Your task to perform on an android device: turn off javascript in the chrome app Image 0: 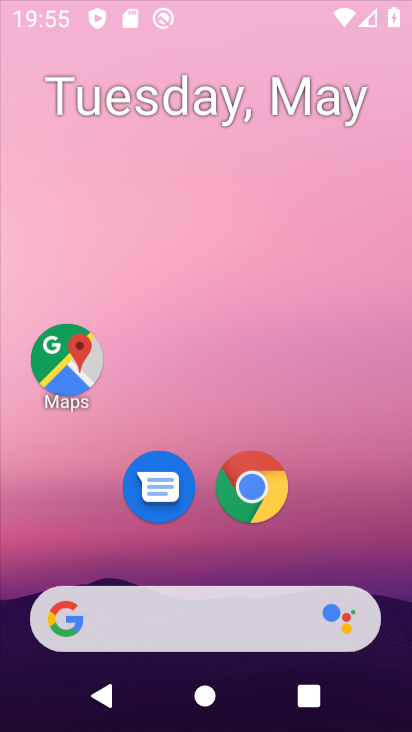
Step 0: drag from (319, 464) to (315, 178)
Your task to perform on an android device: turn off javascript in the chrome app Image 1: 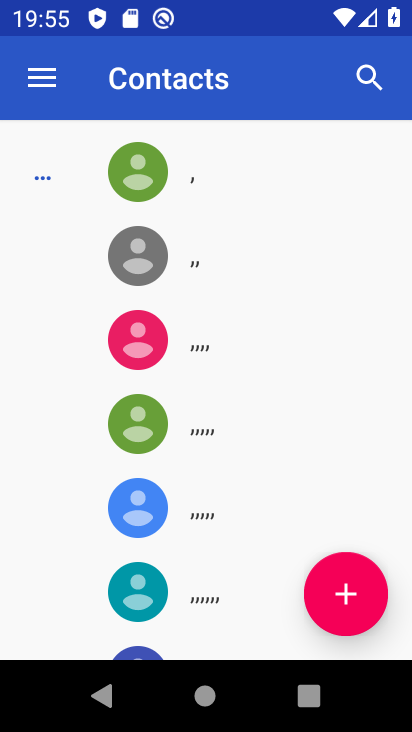
Step 1: press home button
Your task to perform on an android device: turn off javascript in the chrome app Image 2: 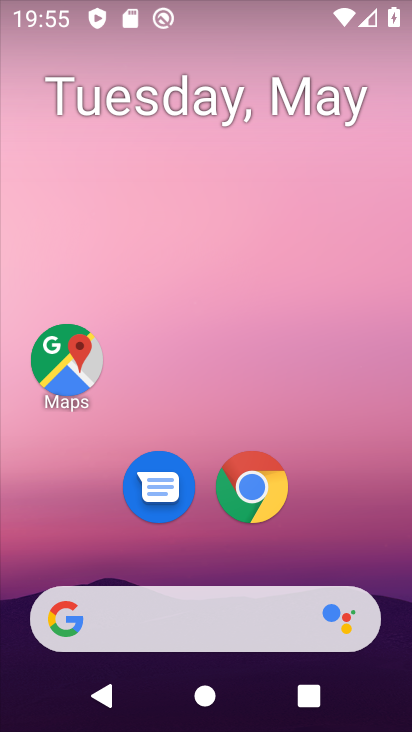
Step 2: drag from (353, 538) to (315, 88)
Your task to perform on an android device: turn off javascript in the chrome app Image 3: 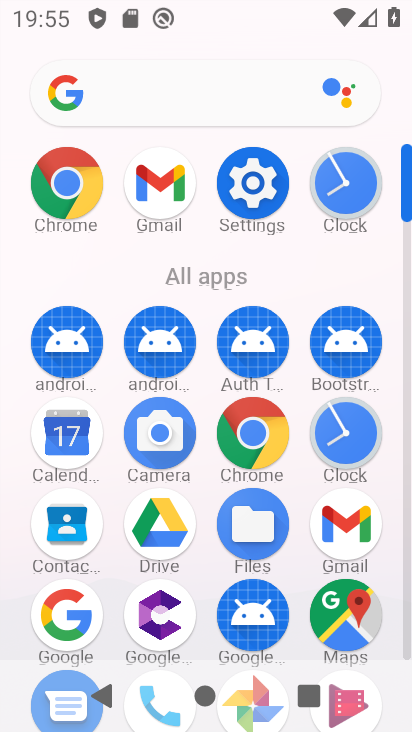
Step 3: click (267, 432)
Your task to perform on an android device: turn off javascript in the chrome app Image 4: 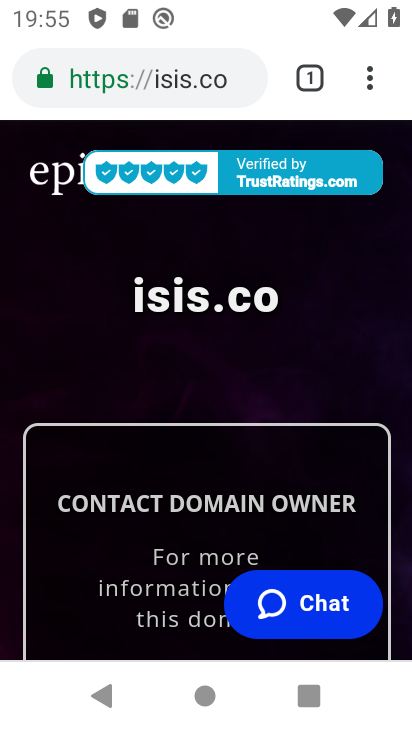
Step 4: click (363, 95)
Your task to perform on an android device: turn off javascript in the chrome app Image 5: 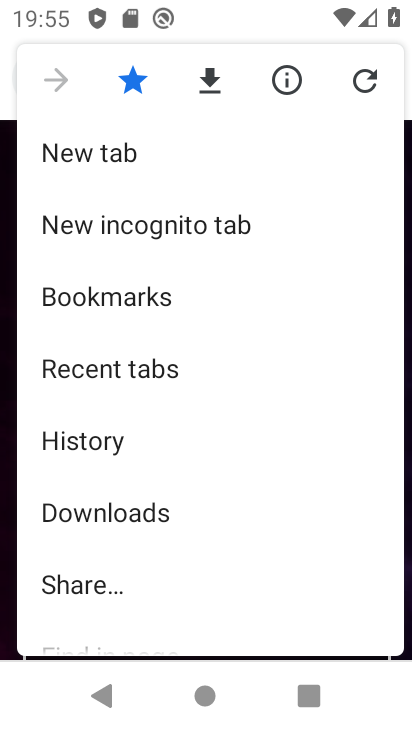
Step 5: drag from (258, 582) to (258, 265)
Your task to perform on an android device: turn off javascript in the chrome app Image 6: 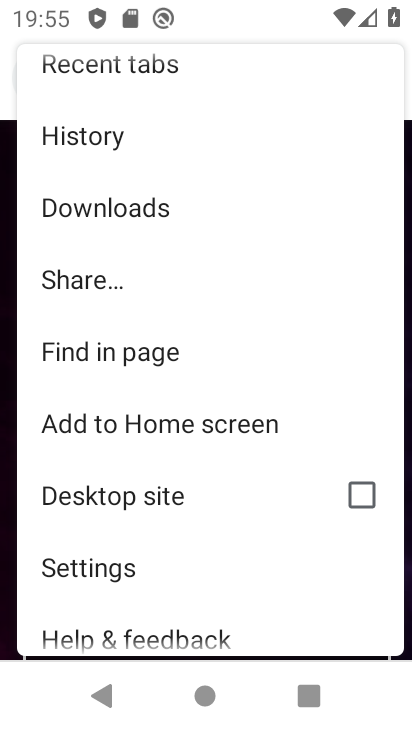
Step 6: click (181, 554)
Your task to perform on an android device: turn off javascript in the chrome app Image 7: 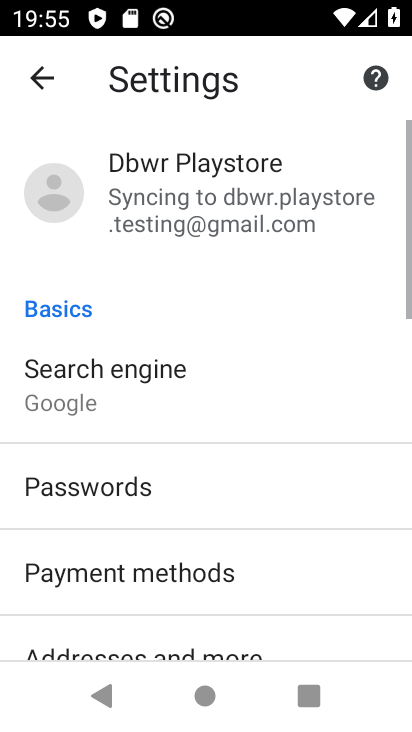
Step 7: drag from (214, 573) to (222, 405)
Your task to perform on an android device: turn off javascript in the chrome app Image 8: 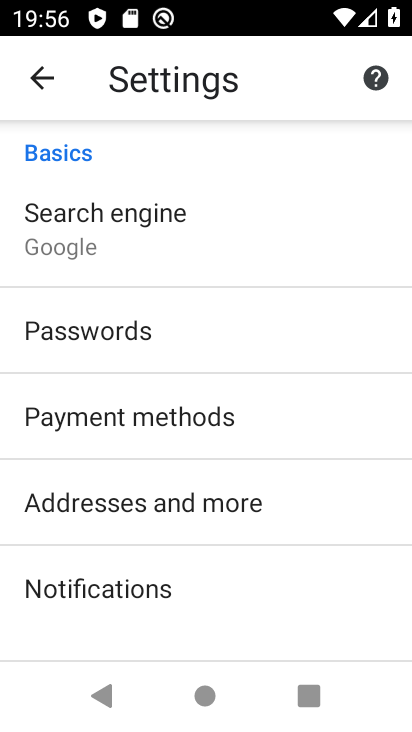
Step 8: drag from (196, 557) to (238, 348)
Your task to perform on an android device: turn off javascript in the chrome app Image 9: 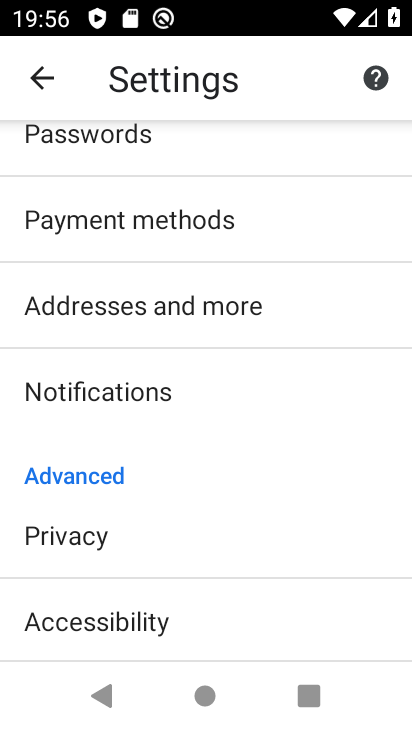
Step 9: drag from (223, 624) to (247, 497)
Your task to perform on an android device: turn off javascript in the chrome app Image 10: 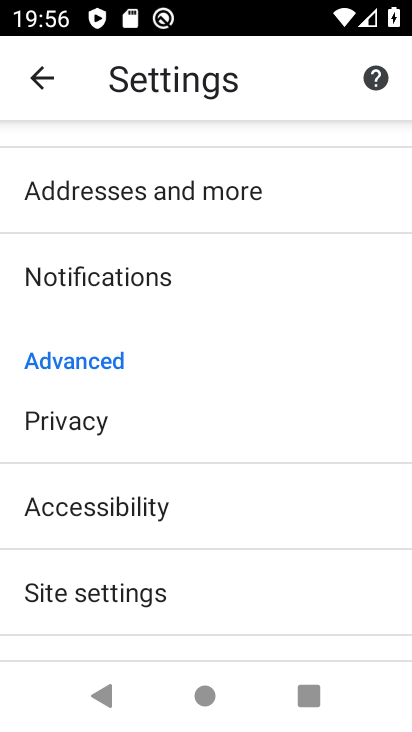
Step 10: click (190, 605)
Your task to perform on an android device: turn off javascript in the chrome app Image 11: 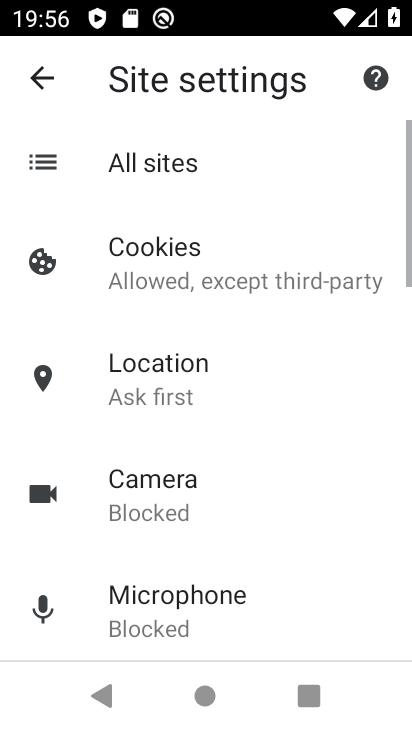
Step 11: drag from (238, 597) to (292, 354)
Your task to perform on an android device: turn off javascript in the chrome app Image 12: 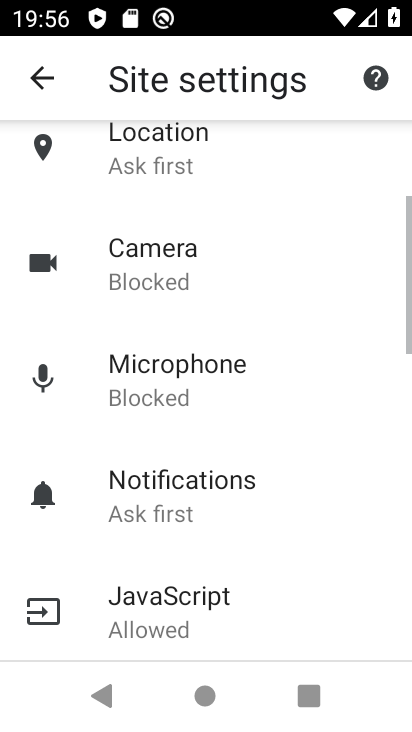
Step 12: click (245, 595)
Your task to perform on an android device: turn off javascript in the chrome app Image 13: 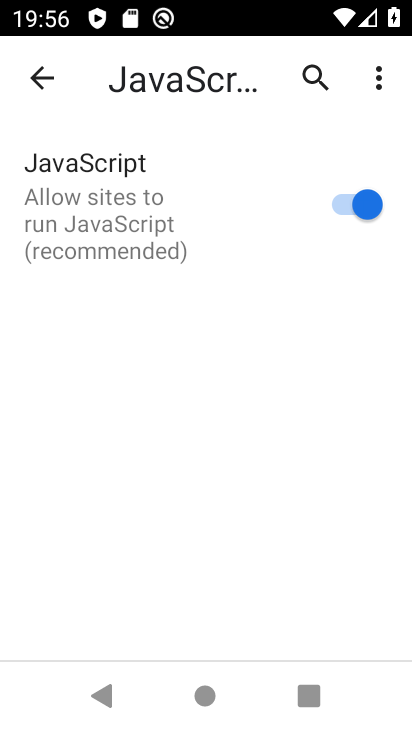
Step 13: click (338, 204)
Your task to perform on an android device: turn off javascript in the chrome app Image 14: 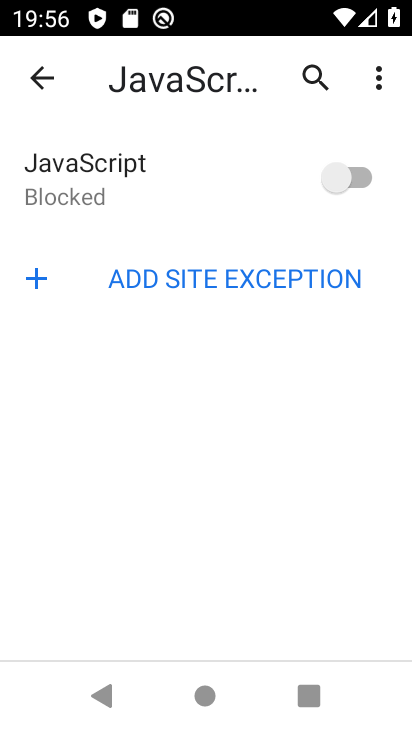
Step 14: task complete